Your task to perform on an android device: How do I get to the nearest T-Mobile Store? Image 0: 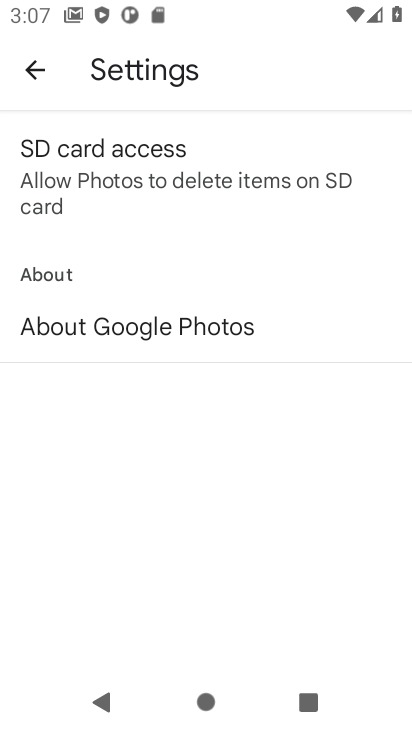
Step 0: press home button
Your task to perform on an android device: How do I get to the nearest T-Mobile Store? Image 1: 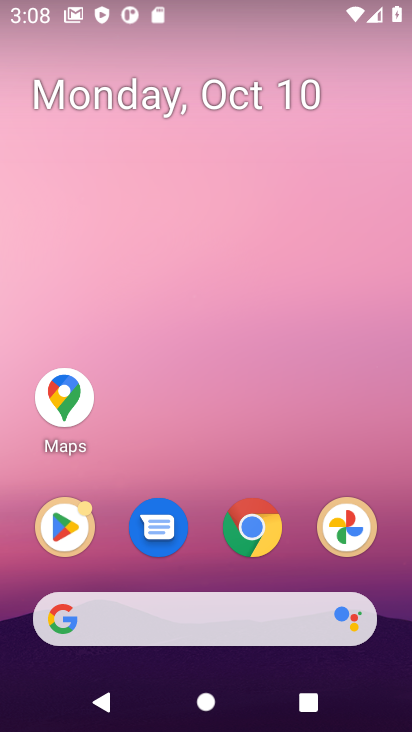
Step 1: click (206, 618)
Your task to perform on an android device: How do I get to the nearest T-Mobile Store? Image 2: 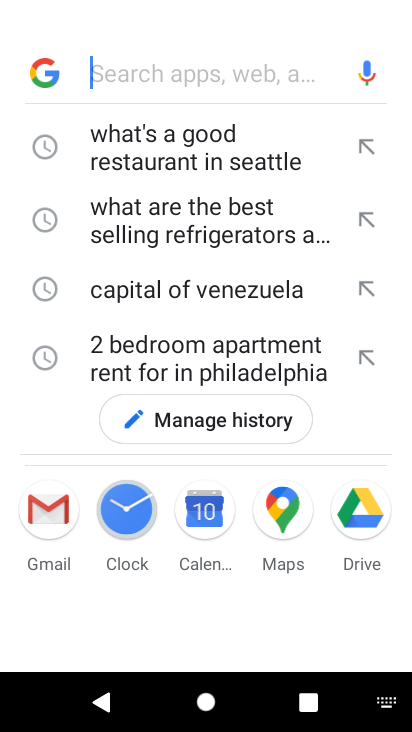
Step 2: press enter
Your task to perform on an android device: How do I get to the nearest T-Mobile Store? Image 3: 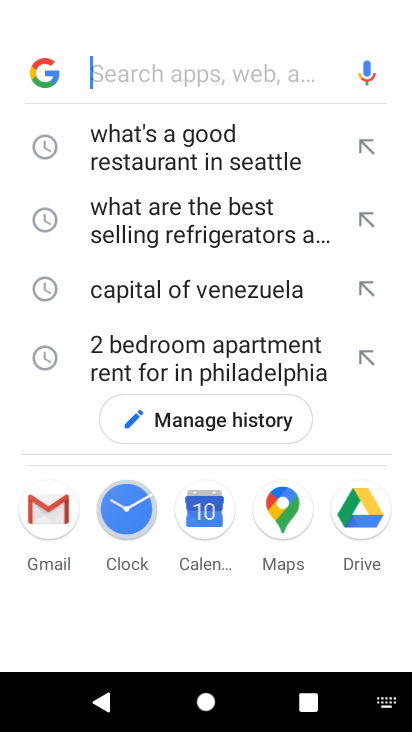
Step 3: type "How do I get to the nearest T-Mobile Store"
Your task to perform on an android device: How do I get to the nearest T-Mobile Store? Image 4: 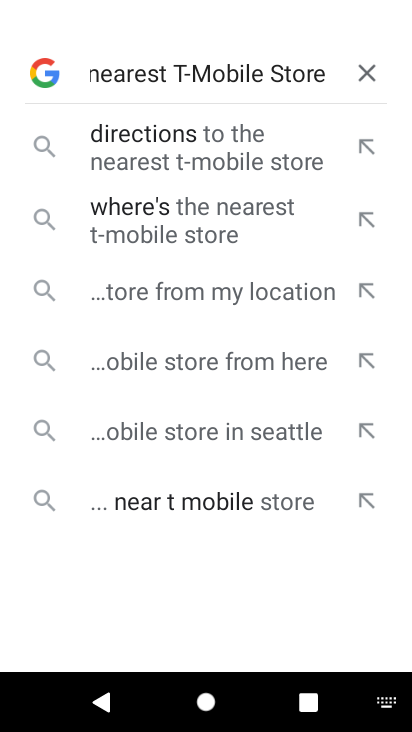
Step 4: press enter
Your task to perform on an android device: How do I get to the nearest T-Mobile Store? Image 5: 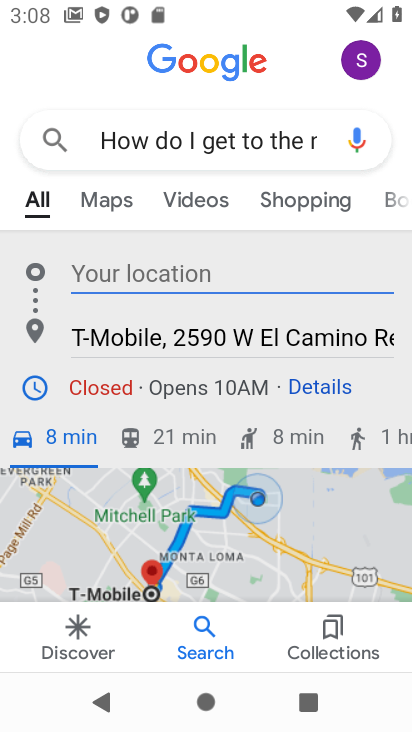
Step 5: task complete